Your task to perform on an android device: turn off location Image 0: 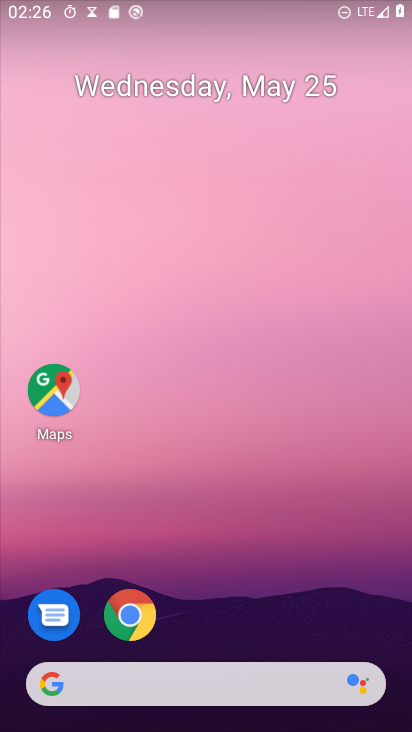
Step 0: drag from (324, 707) to (301, 188)
Your task to perform on an android device: turn off location Image 1: 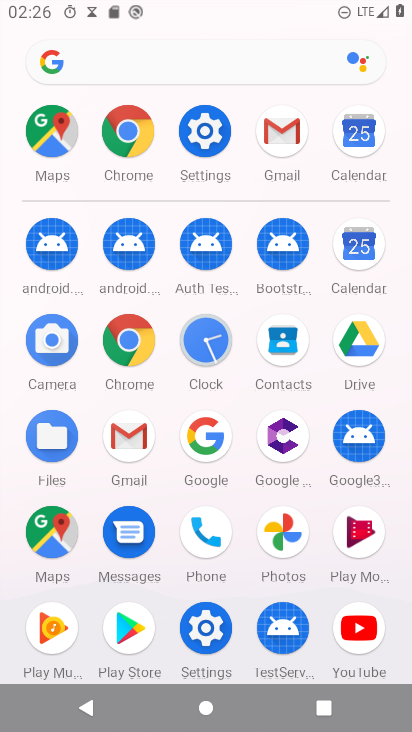
Step 1: click (183, 137)
Your task to perform on an android device: turn off location Image 2: 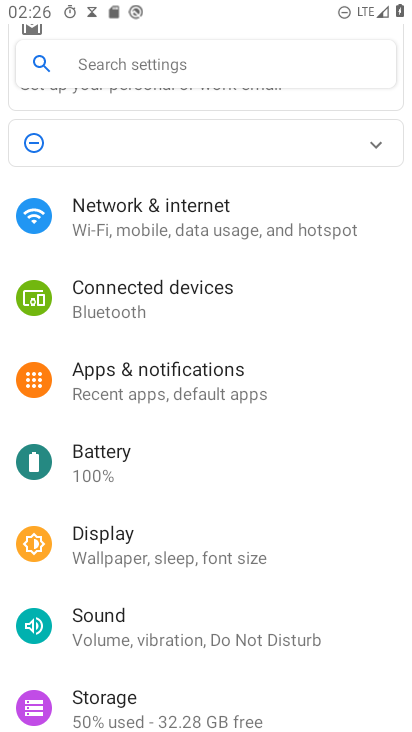
Step 2: click (190, 57)
Your task to perform on an android device: turn off location Image 3: 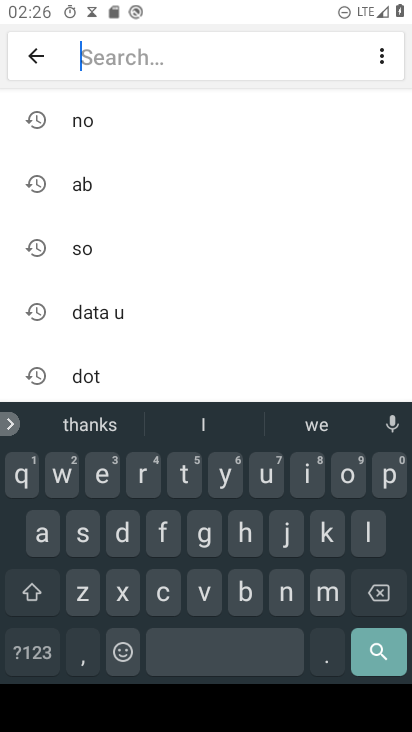
Step 3: click (363, 541)
Your task to perform on an android device: turn off location Image 4: 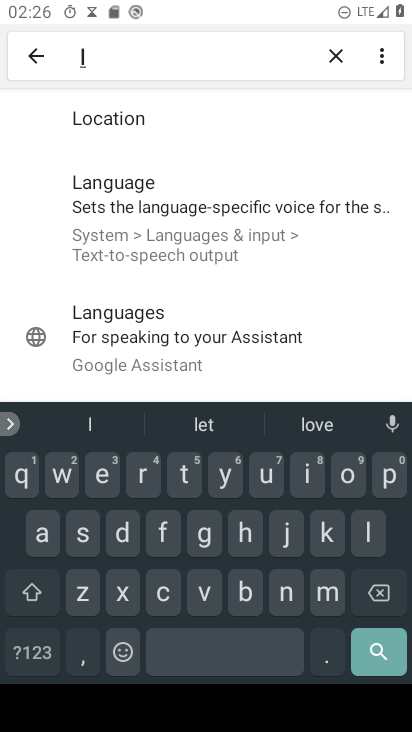
Step 4: click (341, 479)
Your task to perform on an android device: turn off location Image 5: 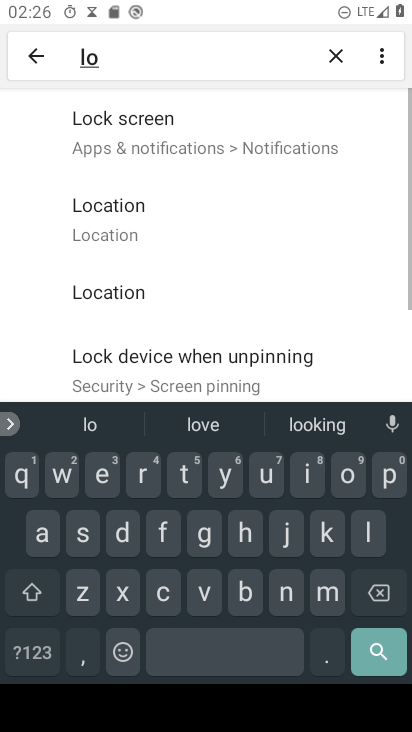
Step 5: click (156, 226)
Your task to perform on an android device: turn off location Image 6: 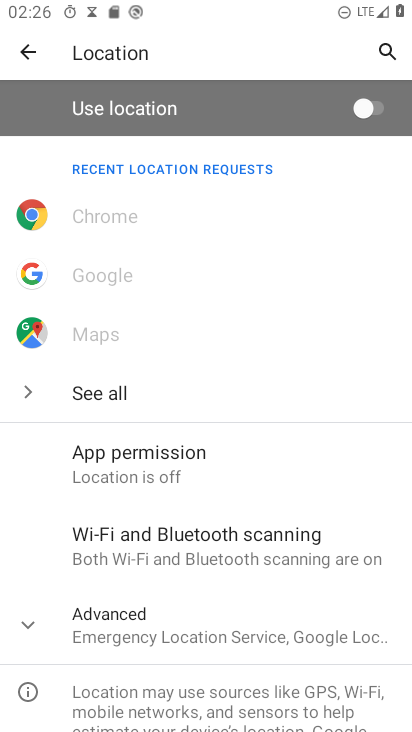
Step 6: click (362, 118)
Your task to perform on an android device: turn off location Image 7: 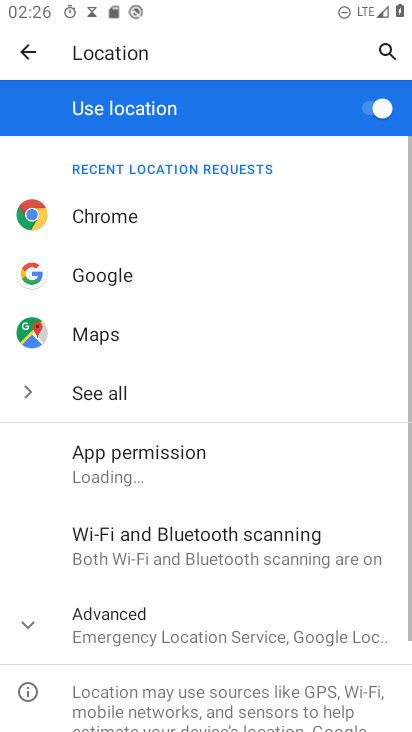
Step 7: click (362, 118)
Your task to perform on an android device: turn off location Image 8: 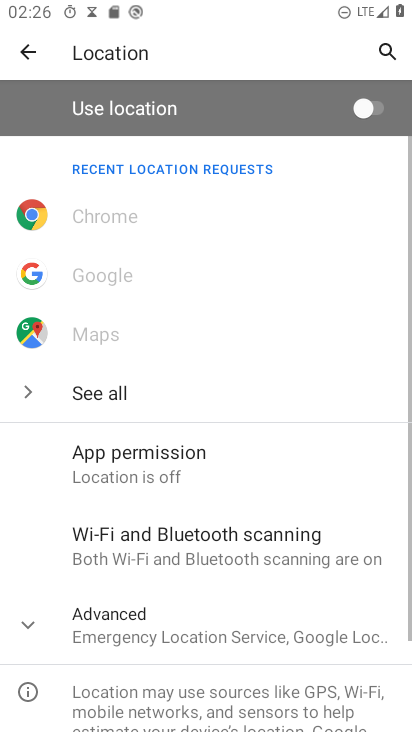
Step 8: task complete